Your task to perform on an android device: Is it going to rain tomorrow? Image 0: 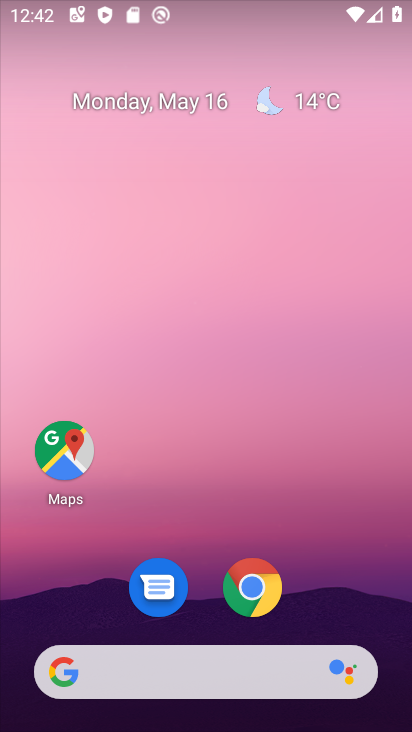
Step 0: click (264, 94)
Your task to perform on an android device: Is it going to rain tomorrow? Image 1: 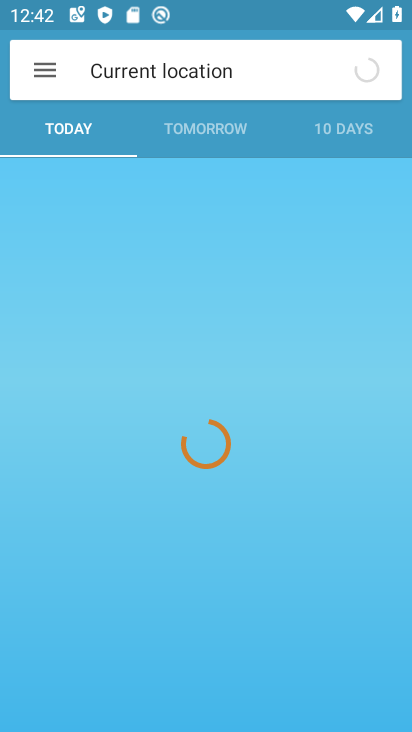
Step 1: click (216, 129)
Your task to perform on an android device: Is it going to rain tomorrow? Image 2: 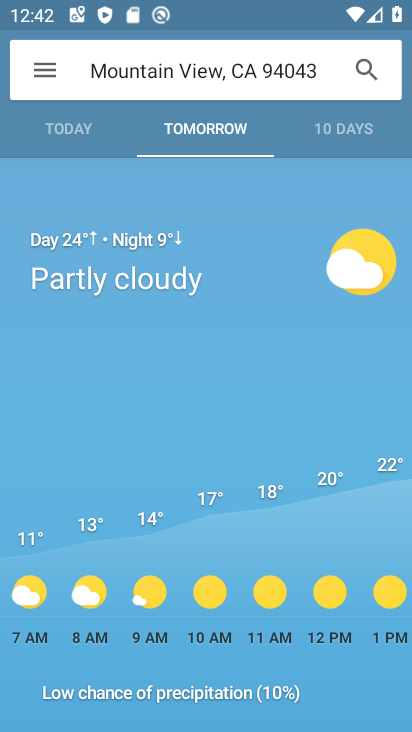
Step 2: task complete